Your task to perform on an android device: Go to Google Image 0: 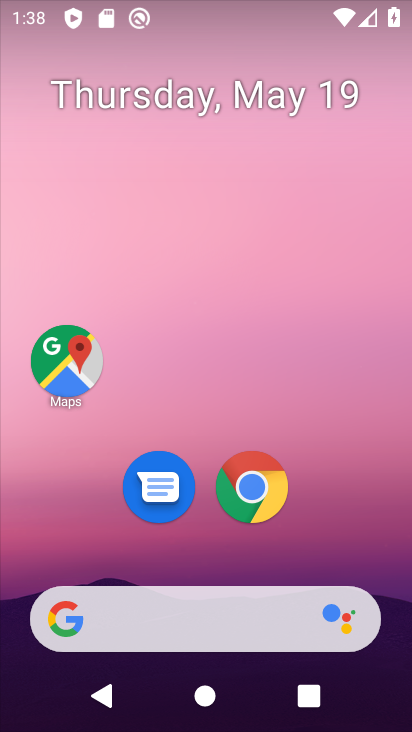
Step 0: drag from (331, 536) to (325, 5)
Your task to perform on an android device: Go to Google Image 1: 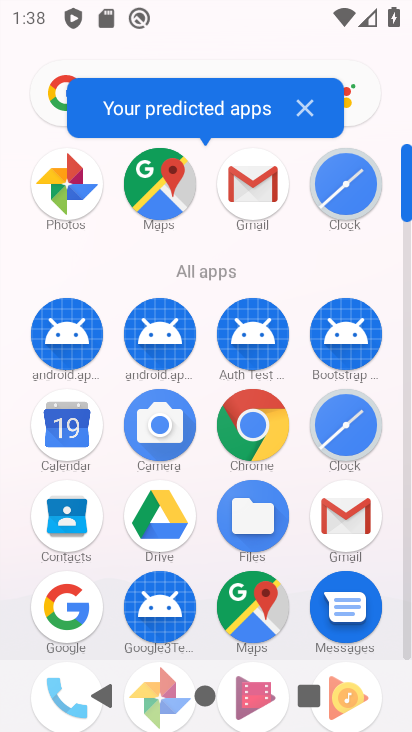
Step 1: click (45, 631)
Your task to perform on an android device: Go to Google Image 2: 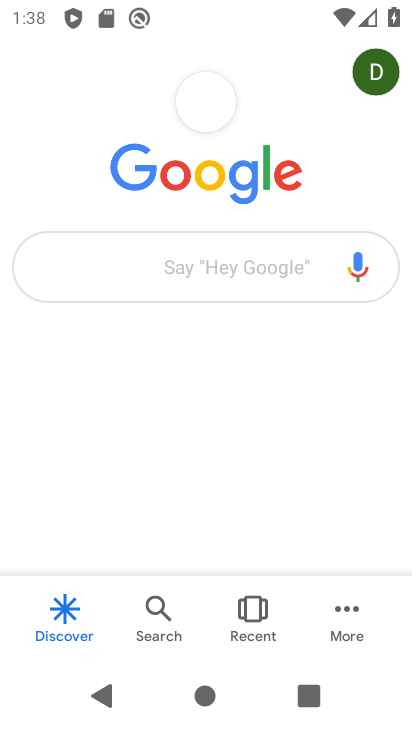
Step 2: task complete